Your task to perform on an android device: Go to ESPN.com Image 0: 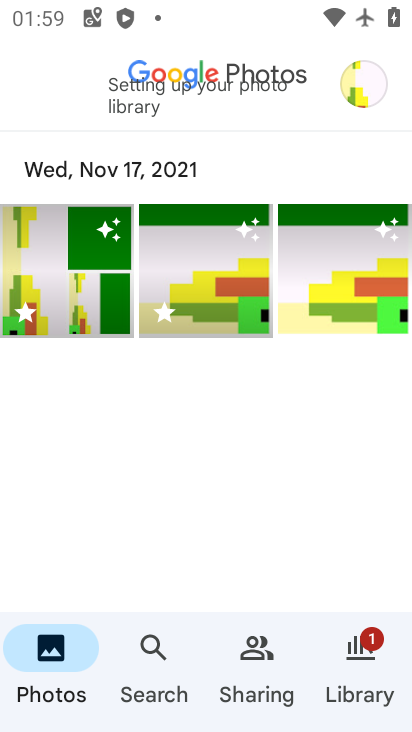
Step 0: press home button
Your task to perform on an android device: Go to ESPN.com Image 1: 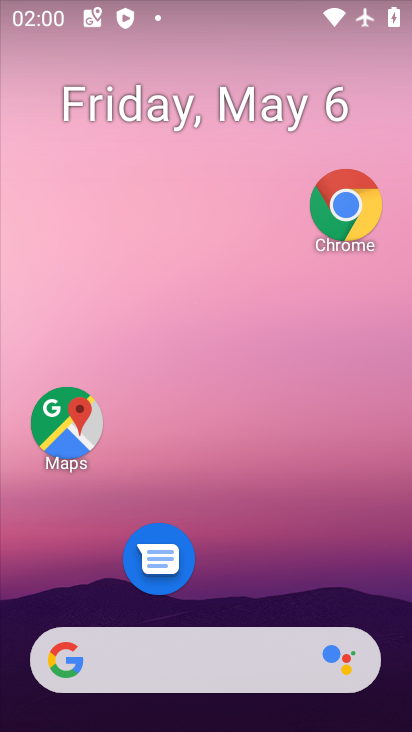
Step 1: drag from (145, 668) to (323, 94)
Your task to perform on an android device: Go to ESPN.com Image 2: 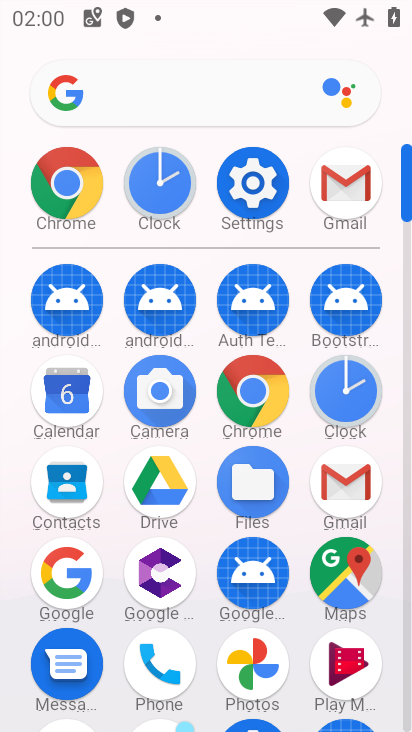
Step 2: click (76, 203)
Your task to perform on an android device: Go to ESPN.com Image 3: 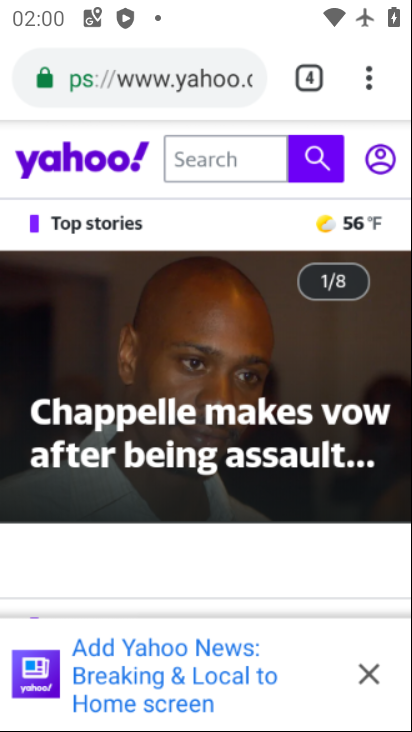
Step 3: drag from (366, 75) to (130, 149)
Your task to perform on an android device: Go to ESPN.com Image 4: 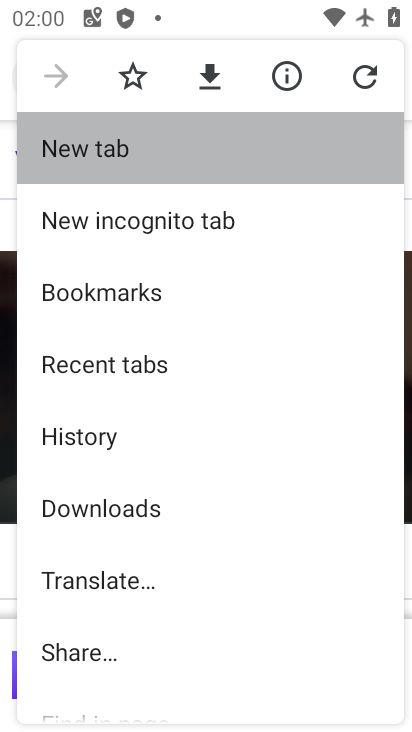
Step 4: click (130, 150)
Your task to perform on an android device: Go to ESPN.com Image 5: 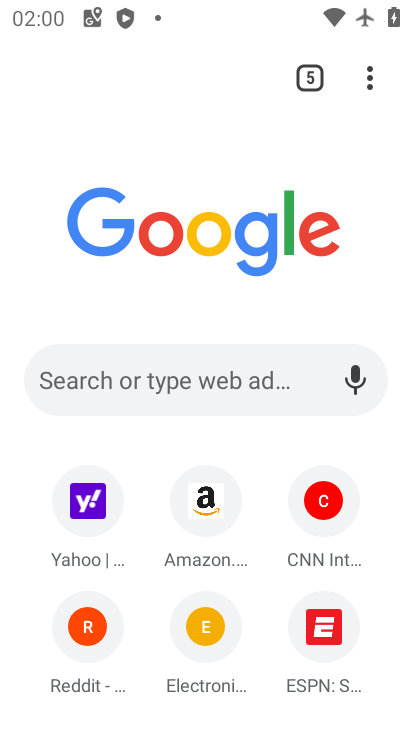
Step 5: click (327, 639)
Your task to perform on an android device: Go to ESPN.com Image 6: 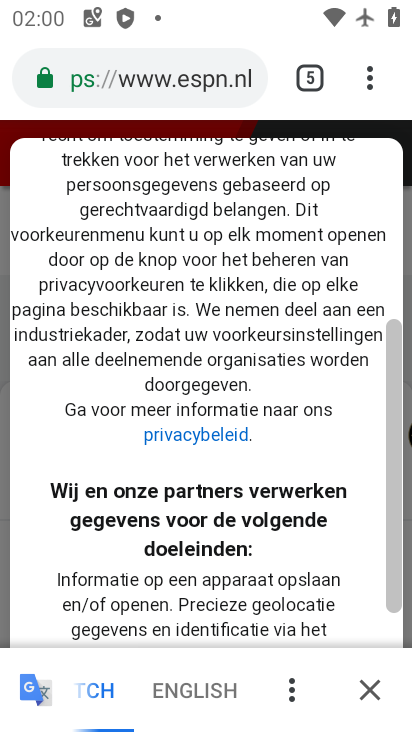
Step 6: task complete